Your task to perform on an android device: Open eBay Image 0: 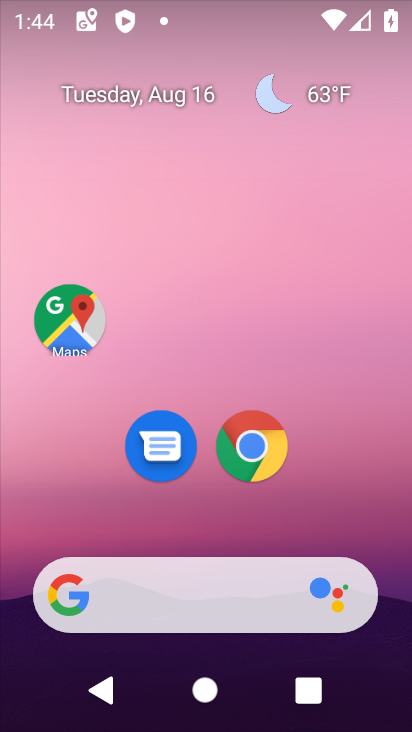
Step 0: click (248, 434)
Your task to perform on an android device: Open eBay Image 1: 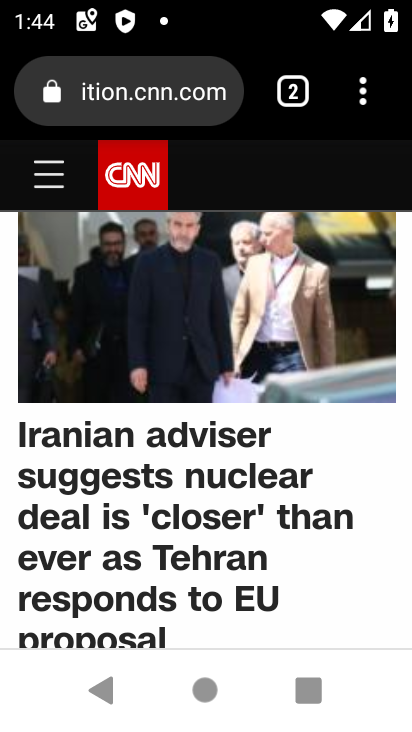
Step 1: click (295, 90)
Your task to perform on an android device: Open eBay Image 2: 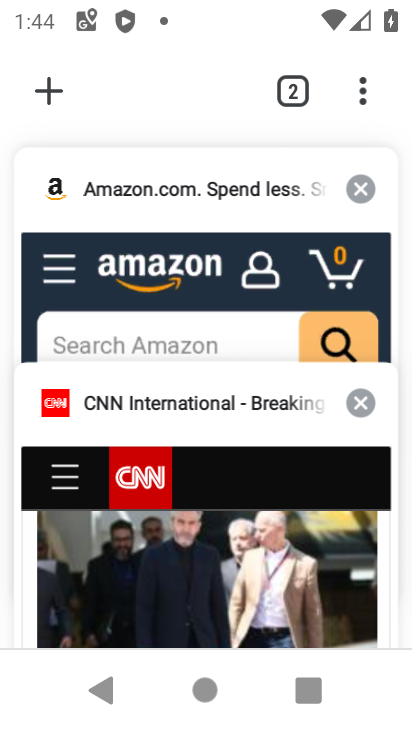
Step 2: click (46, 93)
Your task to perform on an android device: Open eBay Image 3: 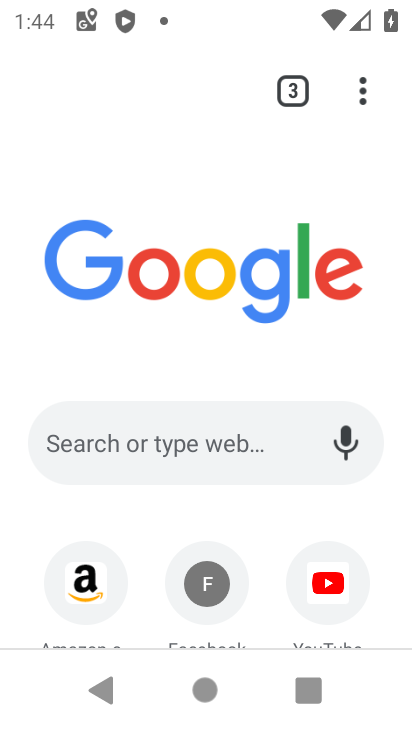
Step 3: drag from (256, 539) to (292, 105)
Your task to perform on an android device: Open eBay Image 4: 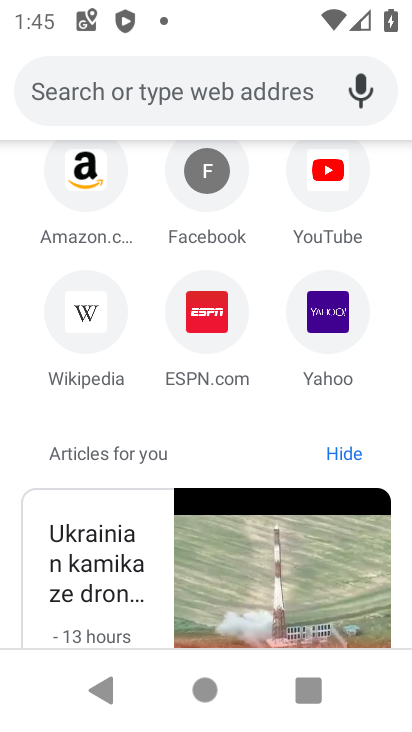
Step 4: click (172, 83)
Your task to perform on an android device: Open eBay Image 5: 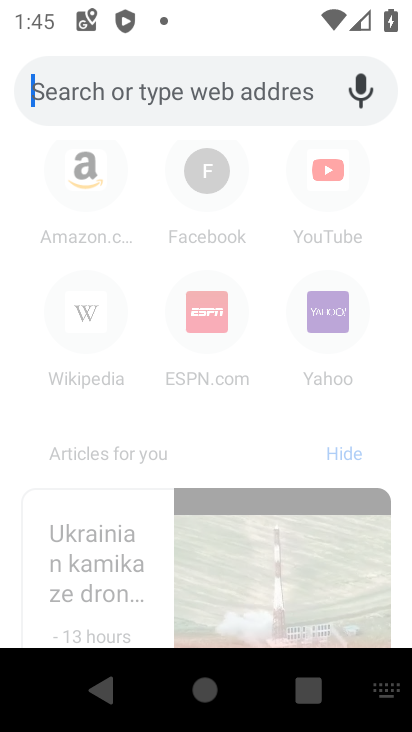
Step 5: type "ebay"
Your task to perform on an android device: Open eBay Image 6: 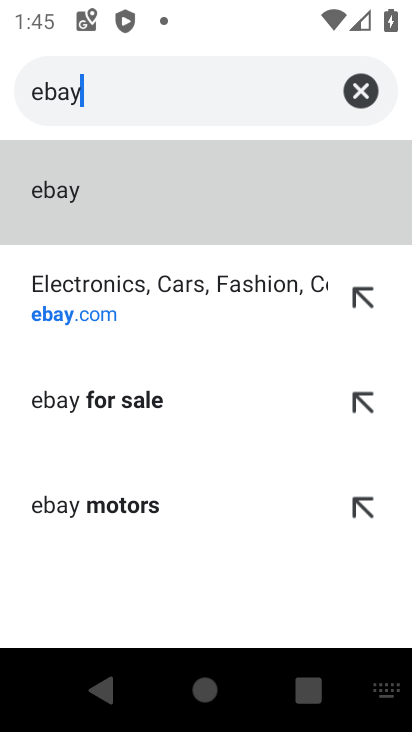
Step 6: click (128, 304)
Your task to perform on an android device: Open eBay Image 7: 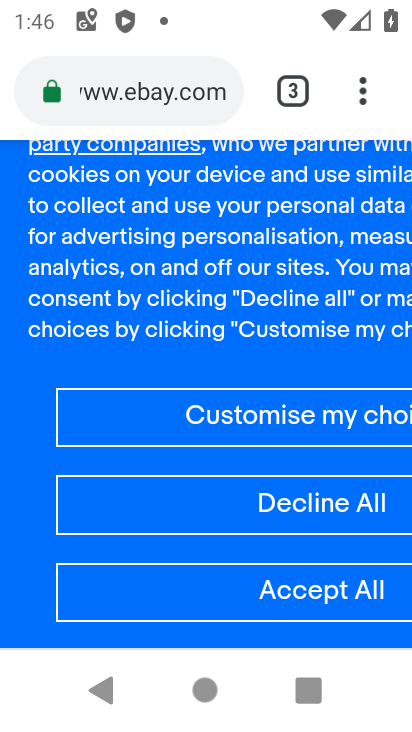
Step 7: click (270, 604)
Your task to perform on an android device: Open eBay Image 8: 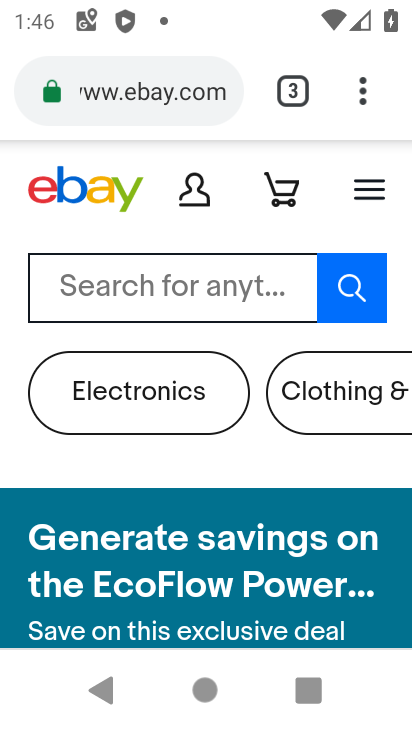
Step 8: task complete